Your task to perform on an android device: Open maps Image 0: 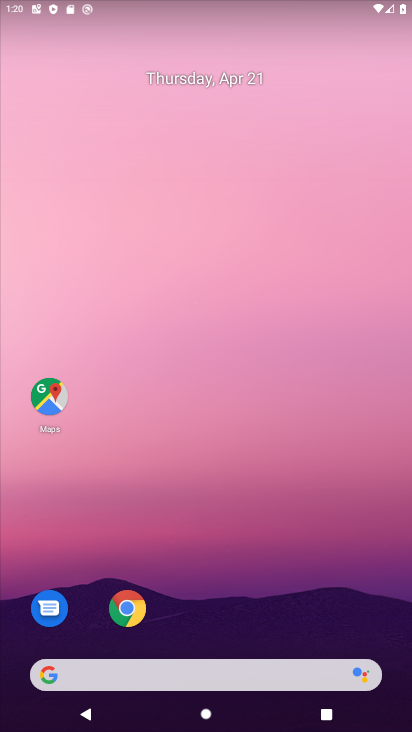
Step 0: drag from (292, 532) to (256, 79)
Your task to perform on an android device: Open maps Image 1: 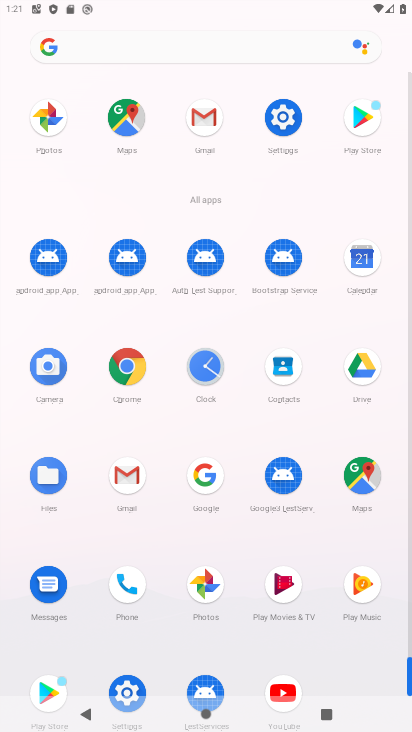
Step 1: click (132, 117)
Your task to perform on an android device: Open maps Image 2: 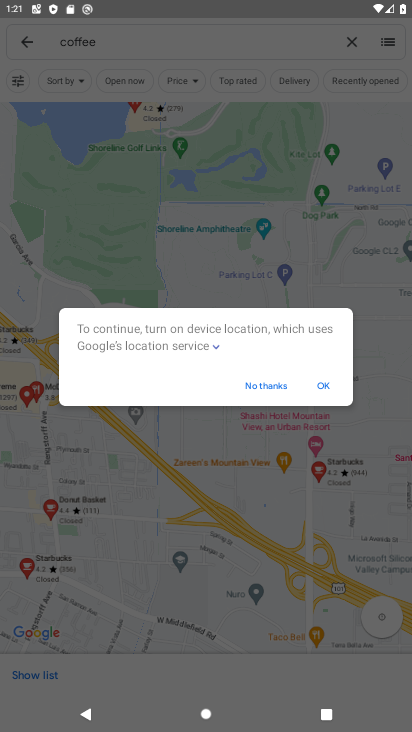
Step 2: task complete